Your task to perform on an android device: change notification settings in the gmail app Image 0: 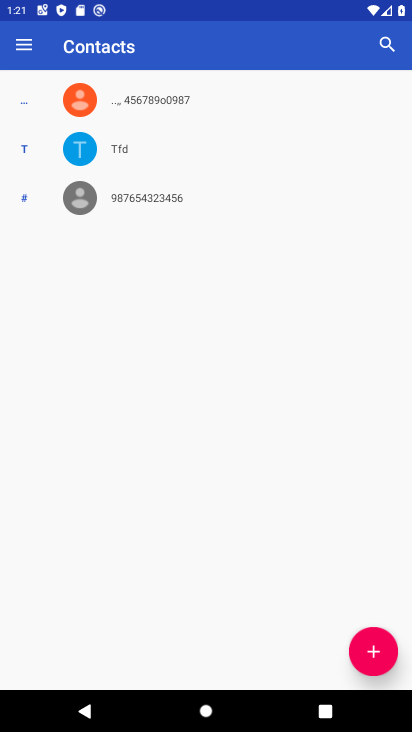
Step 0: press home button
Your task to perform on an android device: change notification settings in the gmail app Image 1: 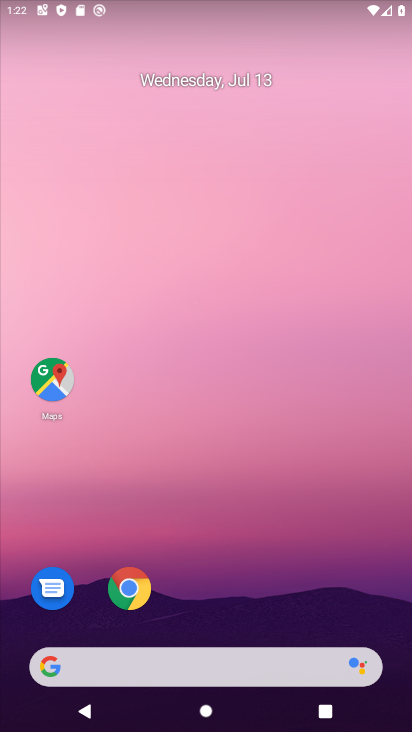
Step 1: drag from (228, 620) to (254, 256)
Your task to perform on an android device: change notification settings in the gmail app Image 2: 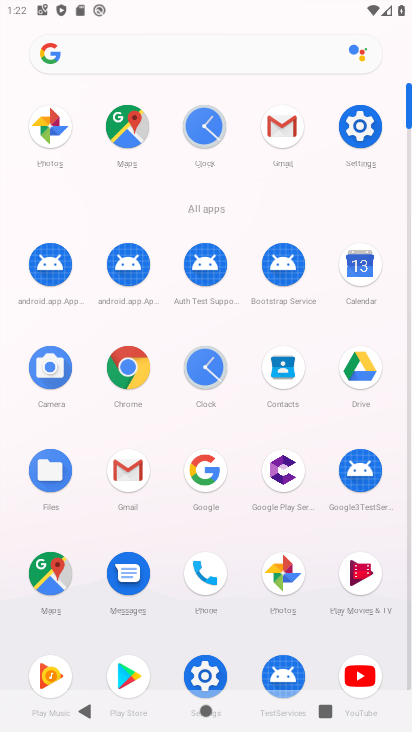
Step 2: click (140, 480)
Your task to perform on an android device: change notification settings in the gmail app Image 3: 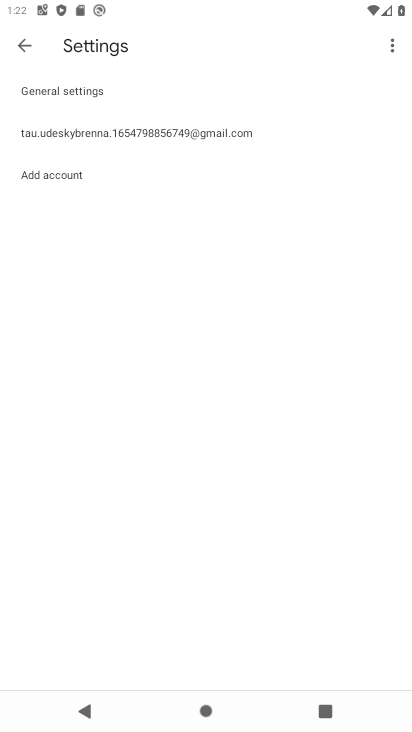
Step 3: click (63, 124)
Your task to perform on an android device: change notification settings in the gmail app Image 4: 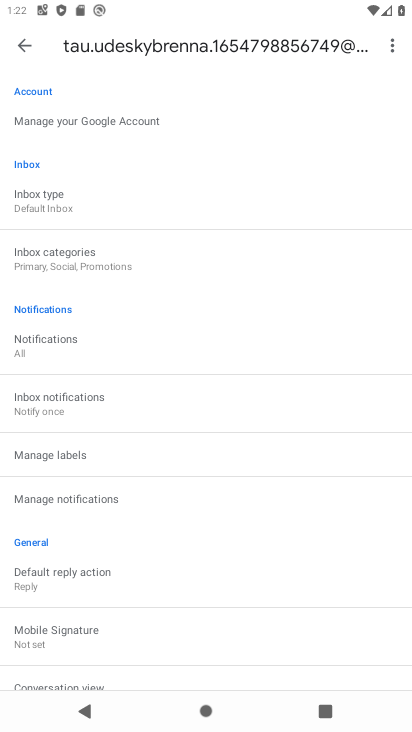
Step 4: click (81, 497)
Your task to perform on an android device: change notification settings in the gmail app Image 5: 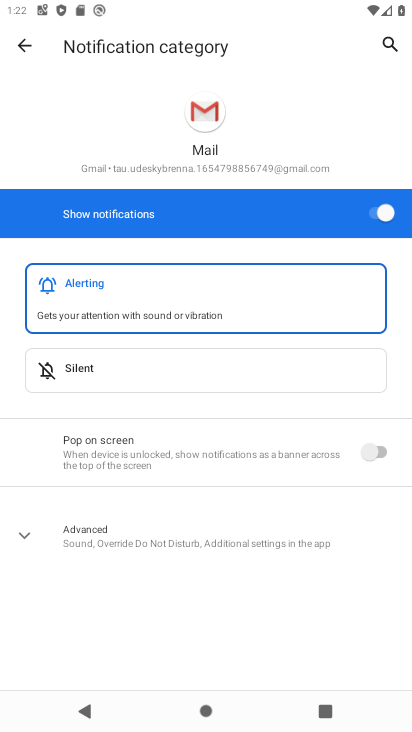
Step 5: click (374, 218)
Your task to perform on an android device: change notification settings in the gmail app Image 6: 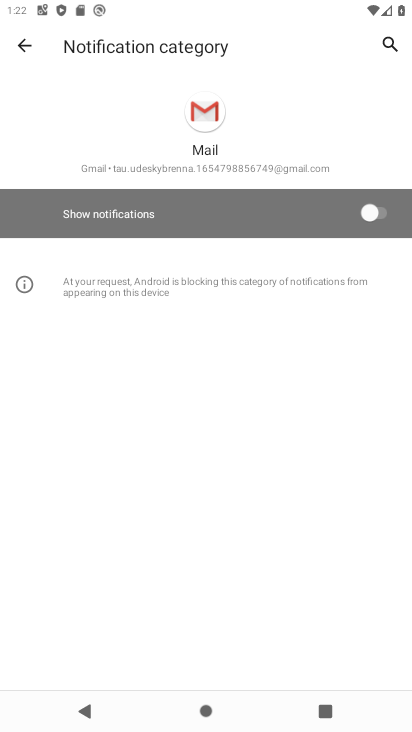
Step 6: task complete